Your task to perform on an android device: Clear all items from cart on amazon. Add beats solo 3 to the cart on amazon, then select checkout. Image 0: 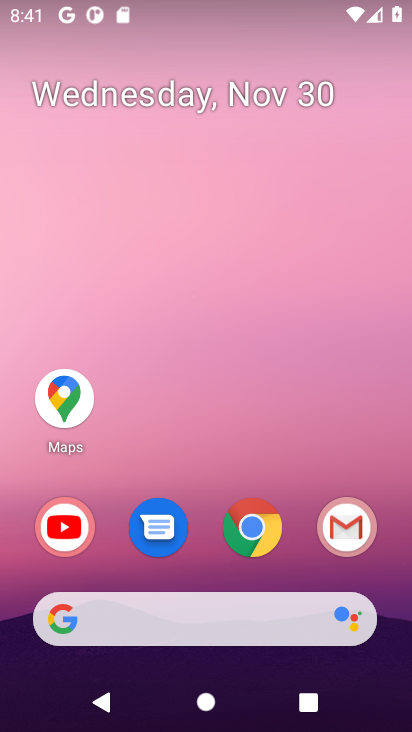
Step 0: click (260, 534)
Your task to perform on an android device: Clear all items from cart on amazon. Add beats solo 3 to the cart on amazon, then select checkout. Image 1: 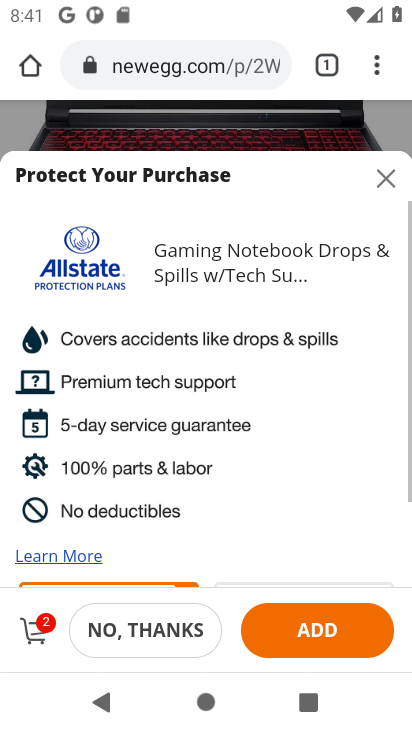
Step 1: click (241, 64)
Your task to perform on an android device: Clear all items from cart on amazon. Add beats solo 3 to the cart on amazon, then select checkout. Image 2: 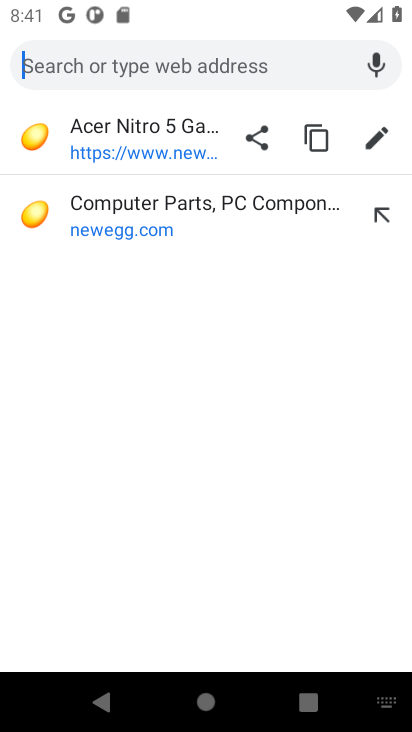
Step 2: type "amazon"
Your task to perform on an android device: Clear all items from cart on amazon. Add beats solo 3 to the cart on amazon, then select checkout. Image 3: 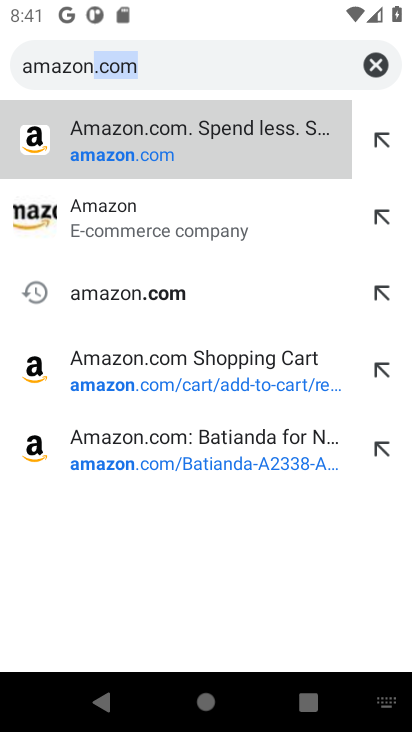
Step 3: press enter
Your task to perform on an android device: Clear all items from cart on amazon. Add beats solo 3 to the cart on amazon, then select checkout. Image 4: 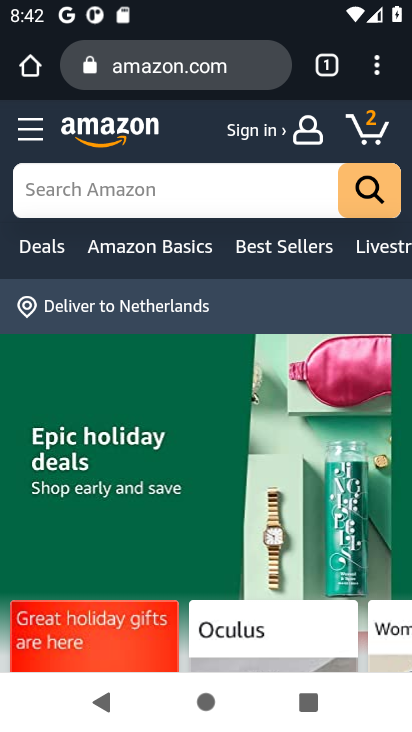
Step 4: click (364, 123)
Your task to perform on an android device: Clear all items from cart on amazon. Add beats solo 3 to the cart on amazon, then select checkout. Image 5: 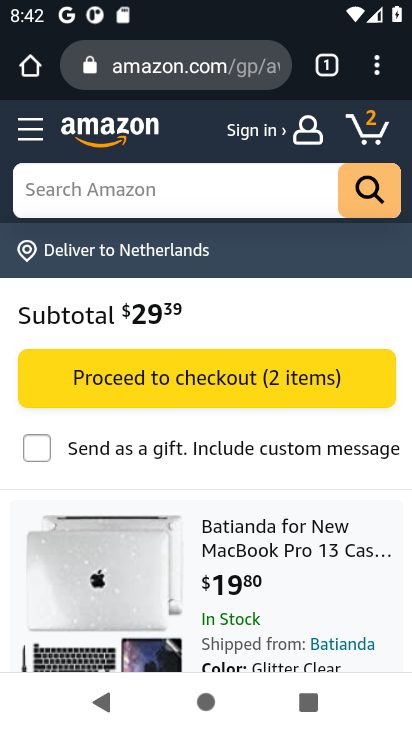
Step 5: drag from (366, 593) to (356, 134)
Your task to perform on an android device: Clear all items from cart on amazon. Add beats solo 3 to the cart on amazon, then select checkout. Image 6: 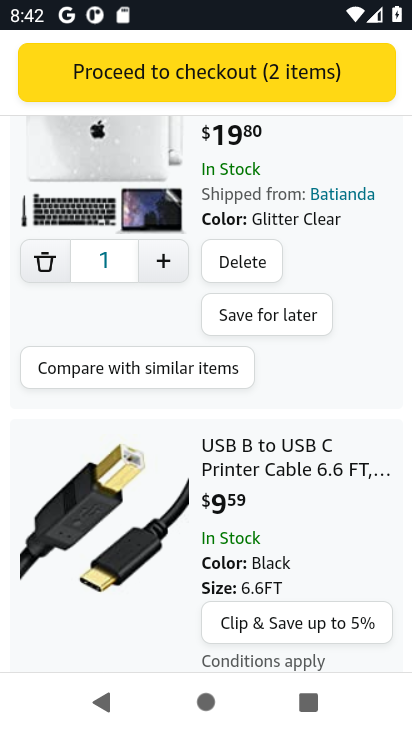
Step 6: click (42, 267)
Your task to perform on an android device: Clear all items from cart on amazon. Add beats solo 3 to the cart on amazon, then select checkout. Image 7: 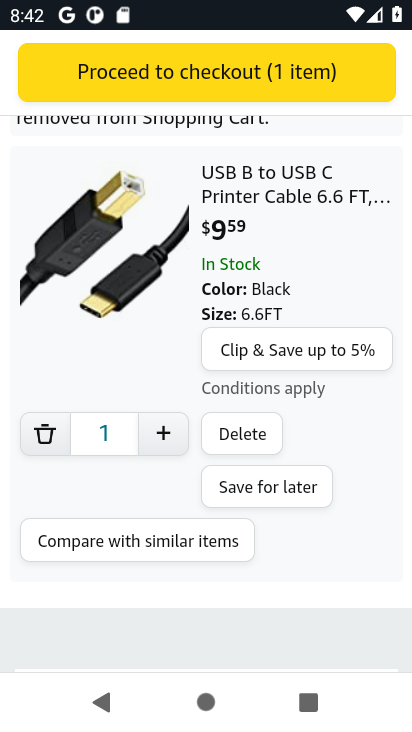
Step 7: click (34, 432)
Your task to perform on an android device: Clear all items from cart on amazon. Add beats solo 3 to the cart on amazon, then select checkout. Image 8: 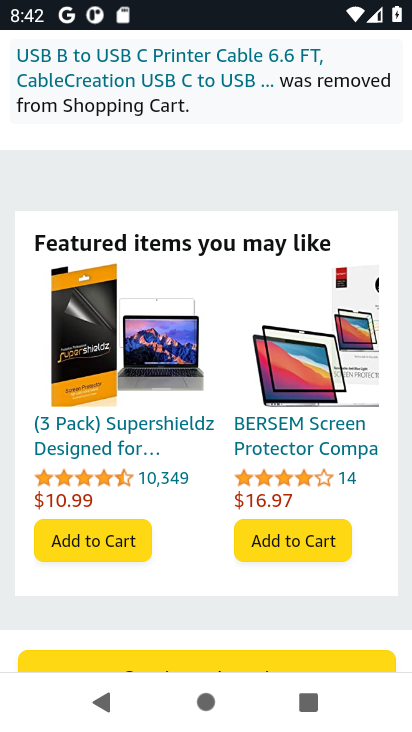
Step 8: drag from (277, 168) to (334, 575)
Your task to perform on an android device: Clear all items from cart on amazon. Add beats solo 3 to the cart on amazon, then select checkout. Image 9: 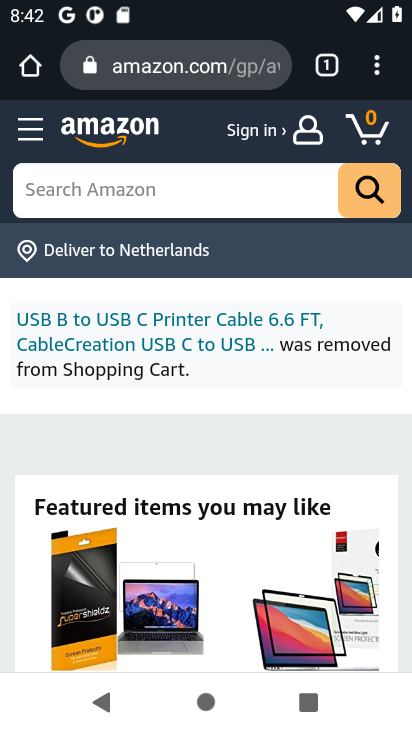
Step 9: click (263, 193)
Your task to perform on an android device: Clear all items from cart on amazon. Add beats solo 3 to the cart on amazon, then select checkout. Image 10: 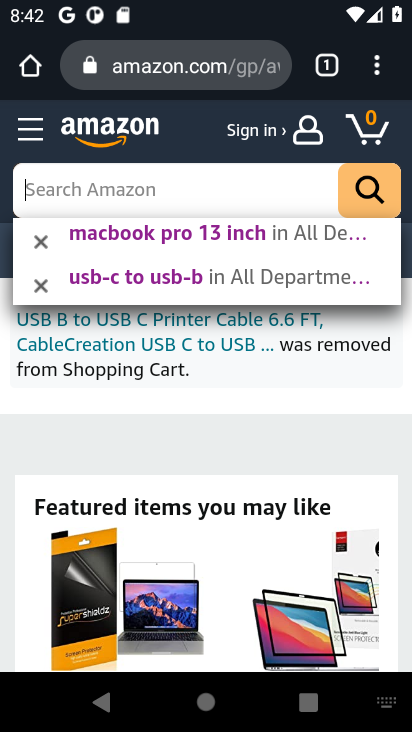
Step 10: type "beats solo 3"
Your task to perform on an android device: Clear all items from cart on amazon. Add beats solo 3 to the cart on amazon, then select checkout. Image 11: 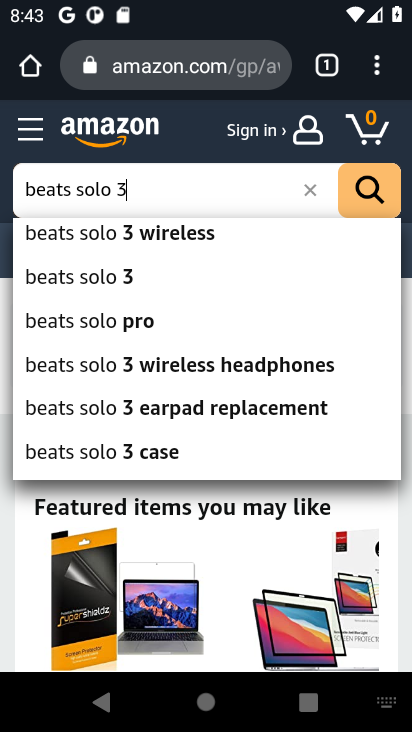
Step 11: press enter
Your task to perform on an android device: Clear all items from cart on amazon. Add beats solo 3 to the cart on amazon, then select checkout. Image 12: 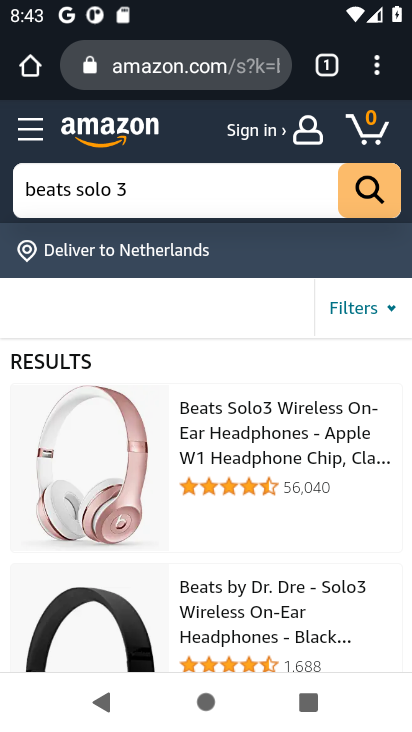
Step 12: click (110, 457)
Your task to perform on an android device: Clear all items from cart on amazon. Add beats solo 3 to the cart on amazon, then select checkout. Image 13: 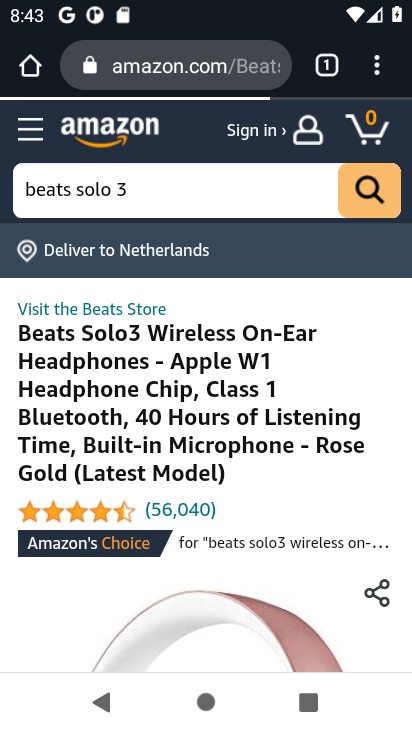
Step 13: drag from (293, 494) to (352, 31)
Your task to perform on an android device: Clear all items from cart on amazon. Add beats solo 3 to the cart on amazon, then select checkout. Image 14: 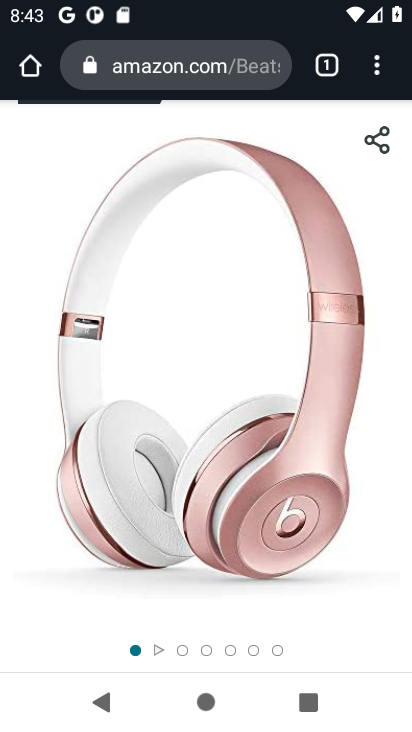
Step 14: drag from (331, 577) to (379, 105)
Your task to perform on an android device: Clear all items from cart on amazon. Add beats solo 3 to the cart on amazon, then select checkout. Image 15: 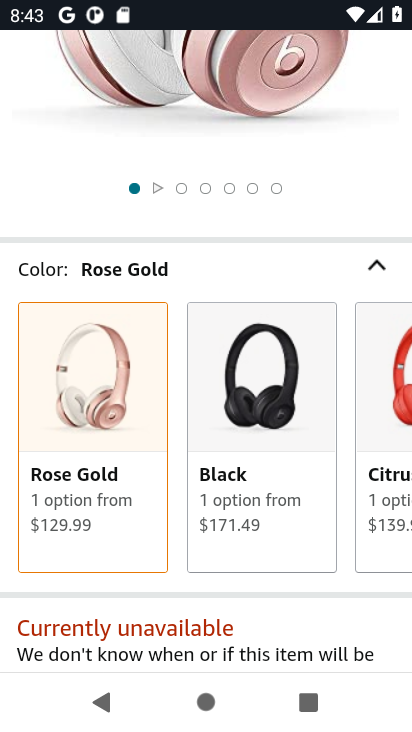
Step 15: drag from (292, 612) to (304, 143)
Your task to perform on an android device: Clear all items from cart on amazon. Add beats solo 3 to the cart on amazon, then select checkout. Image 16: 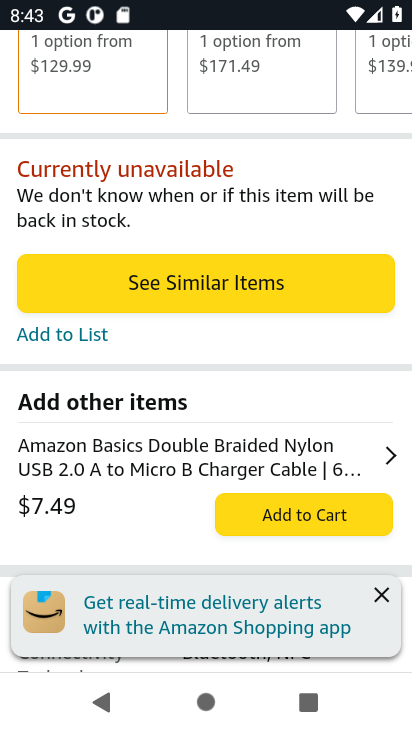
Step 16: press back button
Your task to perform on an android device: Clear all items from cart on amazon. Add beats solo 3 to the cart on amazon, then select checkout. Image 17: 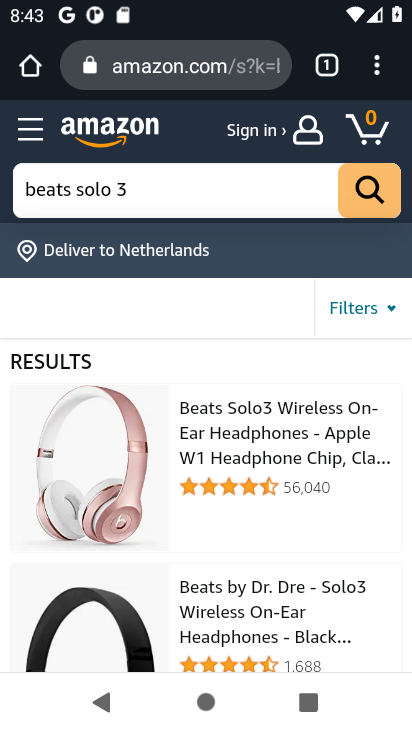
Step 17: drag from (317, 603) to (306, 302)
Your task to perform on an android device: Clear all items from cart on amazon. Add beats solo 3 to the cart on amazon, then select checkout. Image 18: 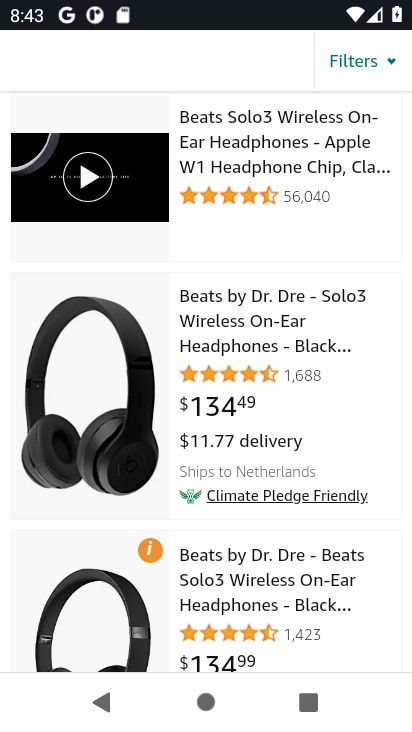
Step 18: click (91, 620)
Your task to perform on an android device: Clear all items from cart on amazon. Add beats solo 3 to the cart on amazon, then select checkout. Image 19: 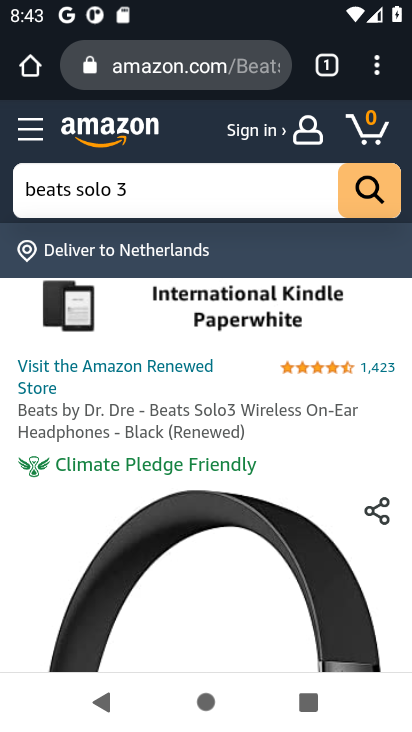
Step 19: drag from (321, 582) to (362, 31)
Your task to perform on an android device: Clear all items from cart on amazon. Add beats solo 3 to the cart on amazon, then select checkout. Image 20: 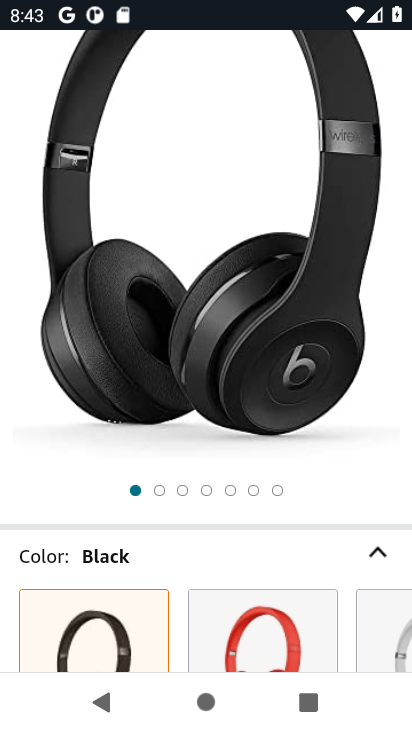
Step 20: drag from (354, 478) to (386, 144)
Your task to perform on an android device: Clear all items from cart on amazon. Add beats solo 3 to the cart on amazon, then select checkout. Image 21: 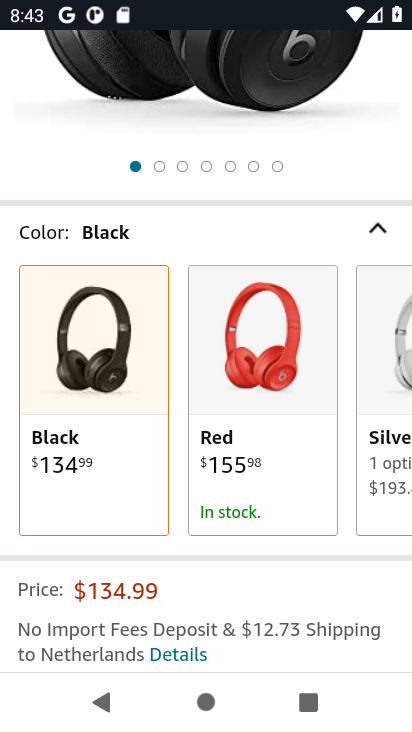
Step 21: drag from (315, 581) to (275, 43)
Your task to perform on an android device: Clear all items from cart on amazon. Add beats solo 3 to the cart on amazon, then select checkout. Image 22: 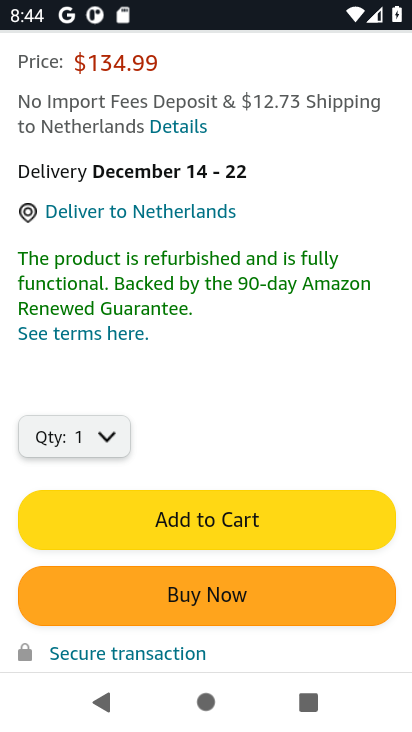
Step 22: click (203, 511)
Your task to perform on an android device: Clear all items from cart on amazon. Add beats solo 3 to the cart on amazon, then select checkout. Image 23: 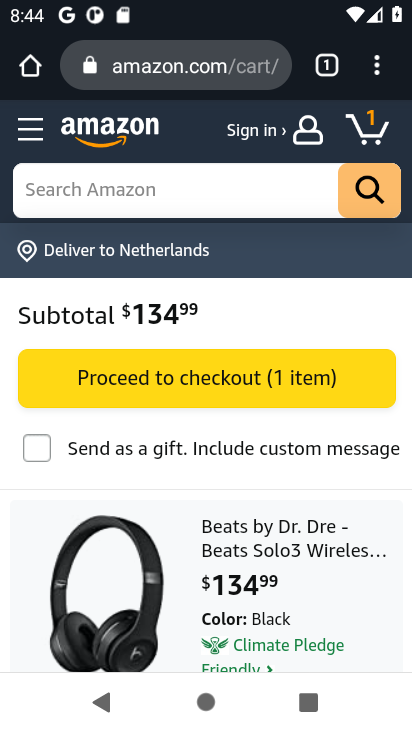
Step 23: click (232, 374)
Your task to perform on an android device: Clear all items from cart on amazon. Add beats solo 3 to the cart on amazon, then select checkout. Image 24: 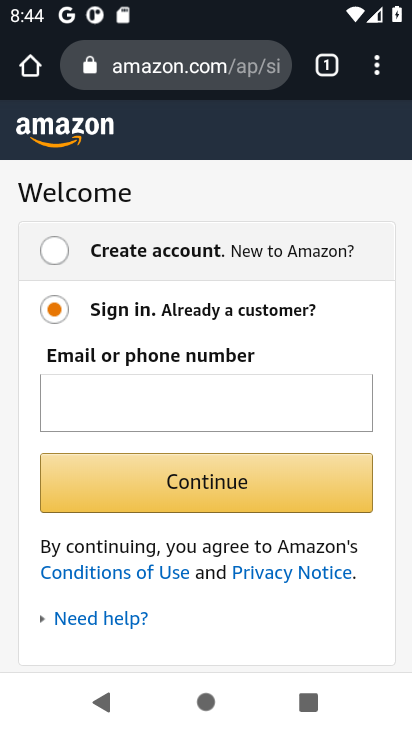
Step 24: task complete